Your task to perform on an android device: Search for Mexican restaurants on Maps Image 0: 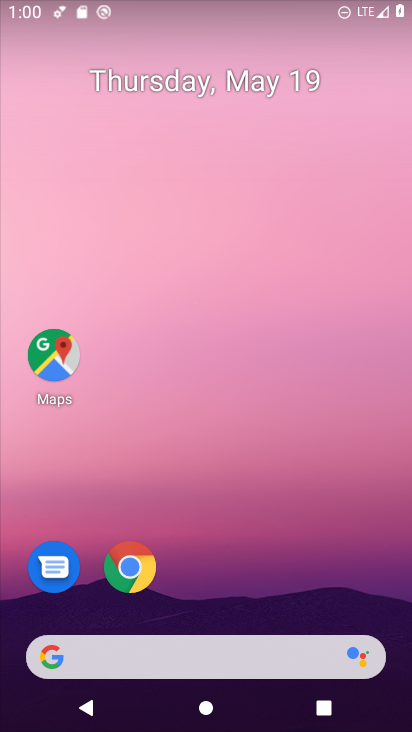
Step 0: click (62, 353)
Your task to perform on an android device: Search for Mexican restaurants on Maps Image 1: 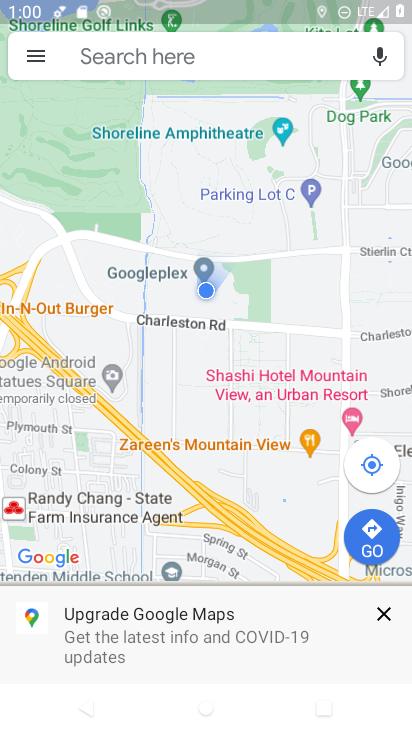
Step 1: click (160, 55)
Your task to perform on an android device: Search for Mexican restaurants on Maps Image 2: 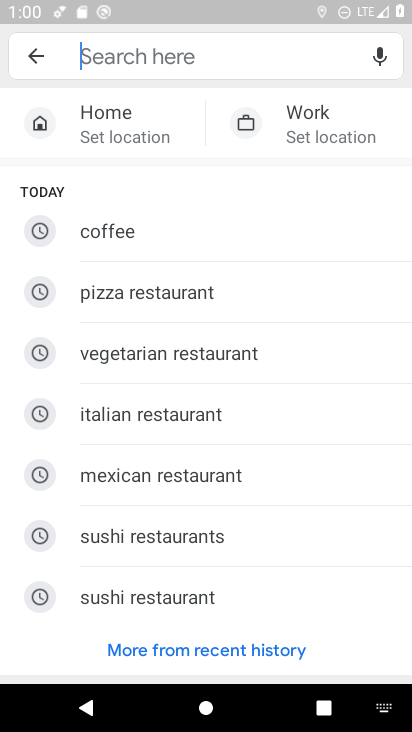
Step 2: click (156, 470)
Your task to perform on an android device: Search for Mexican restaurants on Maps Image 3: 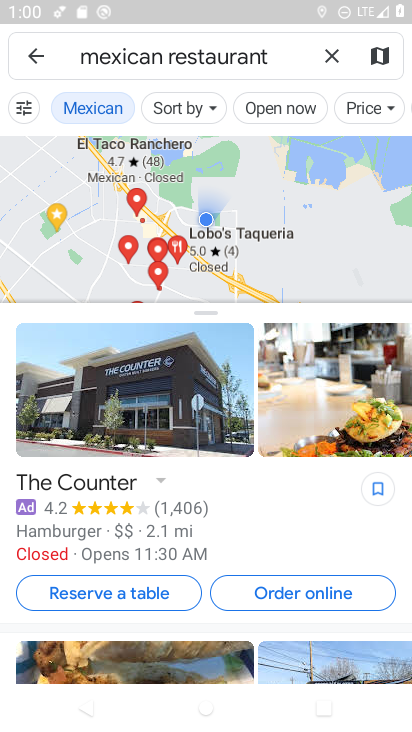
Step 3: task complete